Your task to perform on an android device: Open the Play Movies app and select the watchlist tab. Image 0: 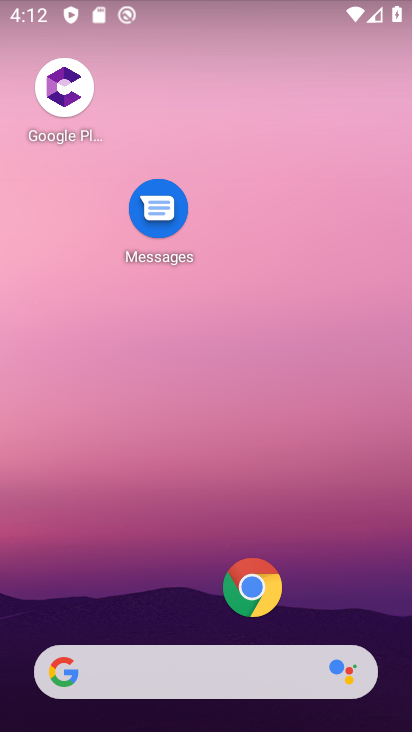
Step 0: drag from (137, 604) to (197, 50)
Your task to perform on an android device: Open the Play Movies app and select the watchlist tab. Image 1: 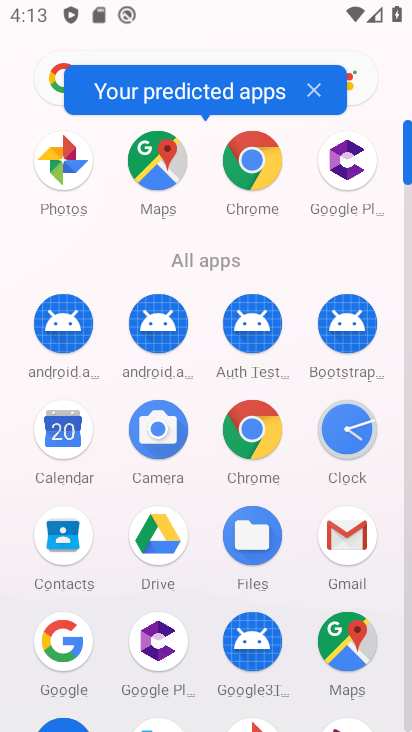
Step 1: drag from (218, 640) to (218, 35)
Your task to perform on an android device: Open the Play Movies app and select the watchlist tab. Image 2: 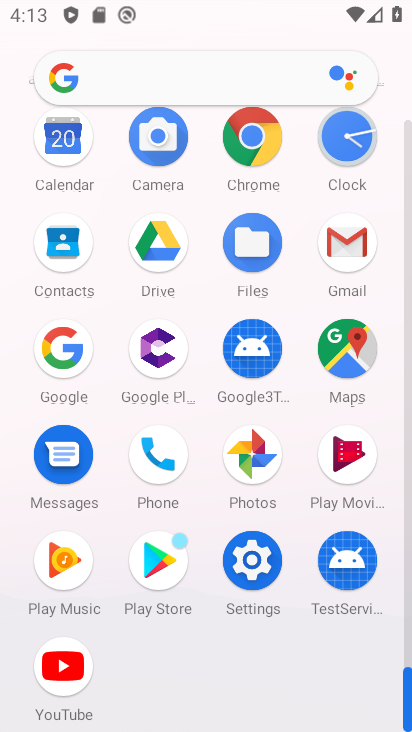
Step 2: click (343, 462)
Your task to perform on an android device: Open the Play Movies app and select the watchlist tab. Image 3: 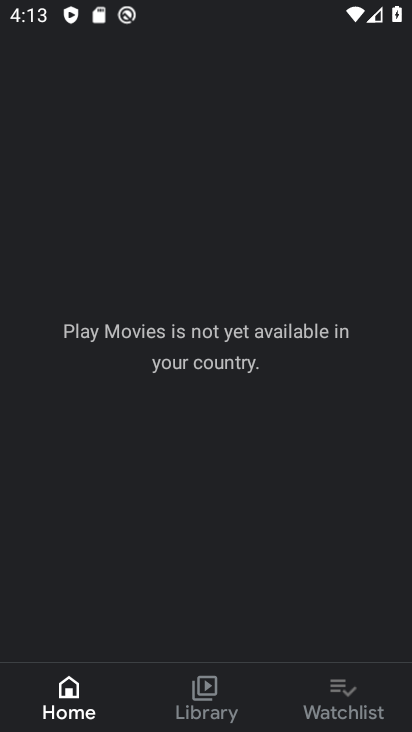
Step 3: click (338, 677)
Your task to perform on an android device: Open the Play Movies app and select the watchlist tab. Image 4: 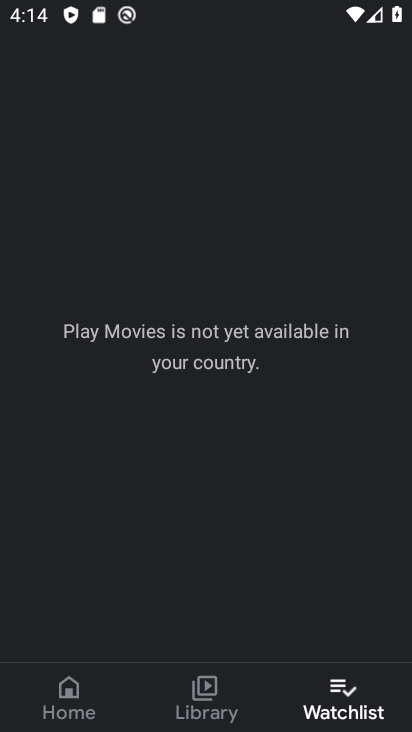
Step 4: task complete